Your task to perform on an android device: uninstall "Google Photos" Image 0: 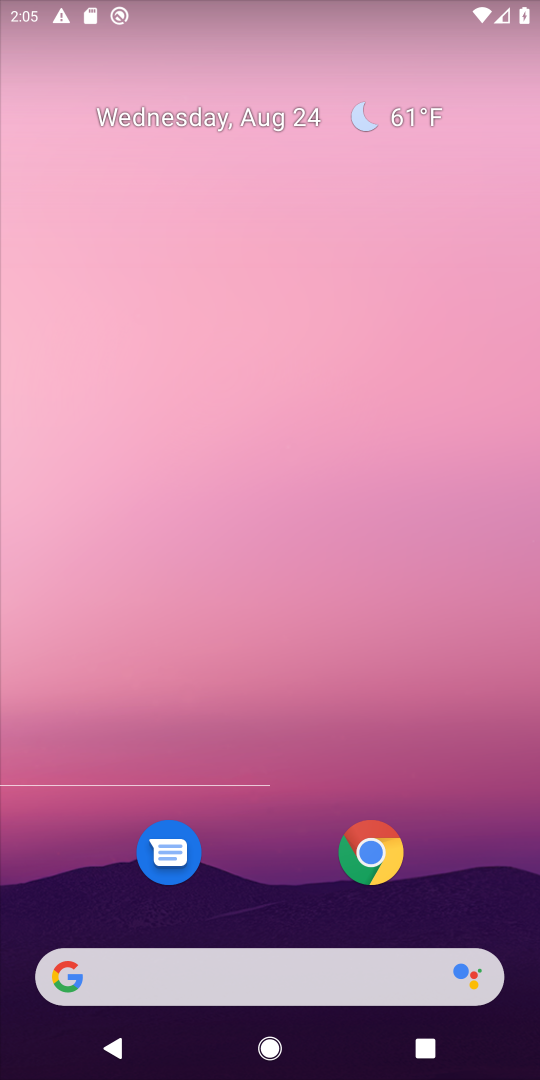
Step 0: press home button
Your task to perform on an android device: uninstall "Google Photos" Image 1: 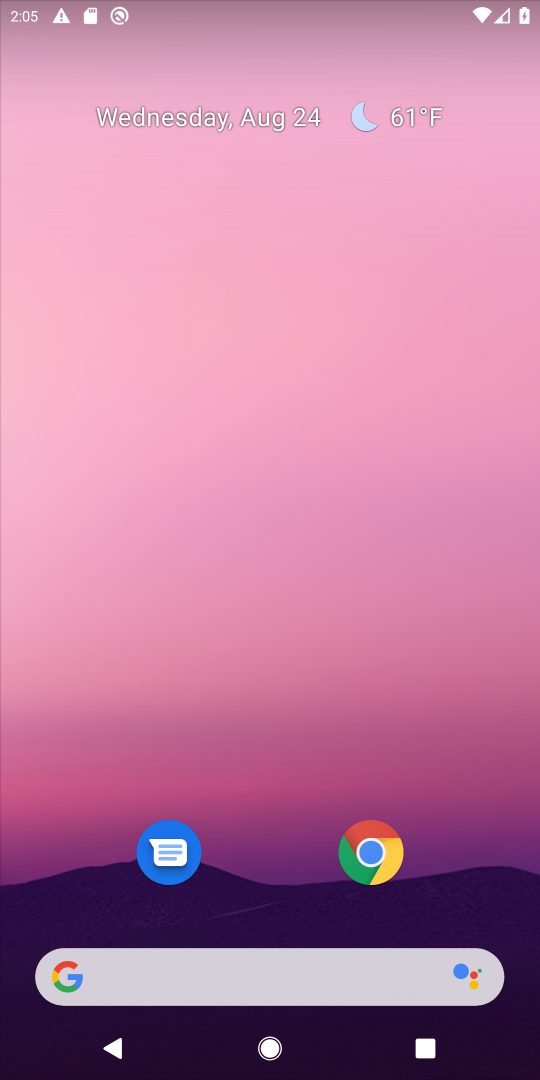
Step 1: drag from (270, 902) to (385, 35)
Your task to perform on an android device: uninstall "Google Photos" Image 2: 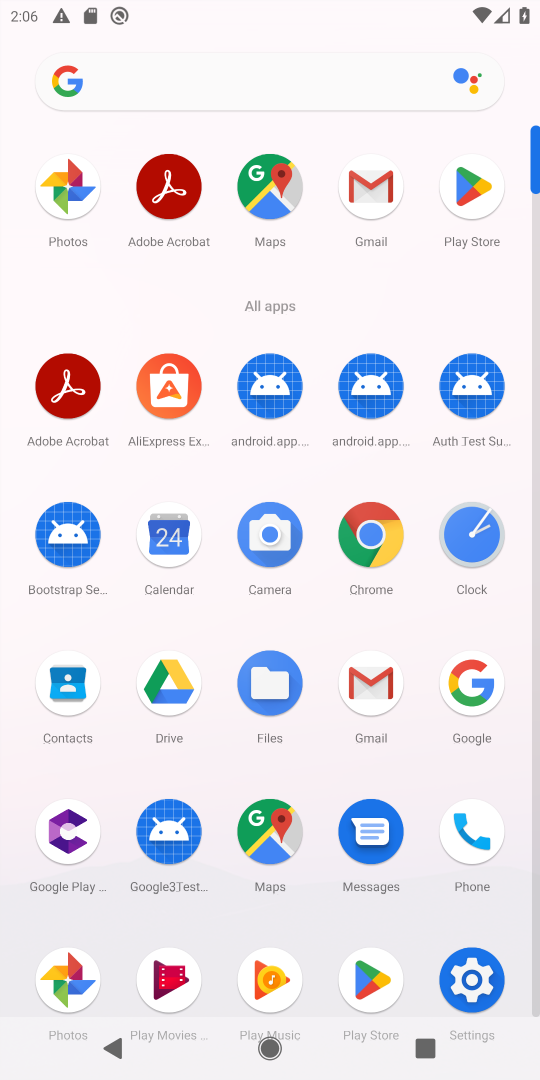
Step 2: click (463, 197)
Your task to perform on an android device: uninstall "Google Photos" Image 3: 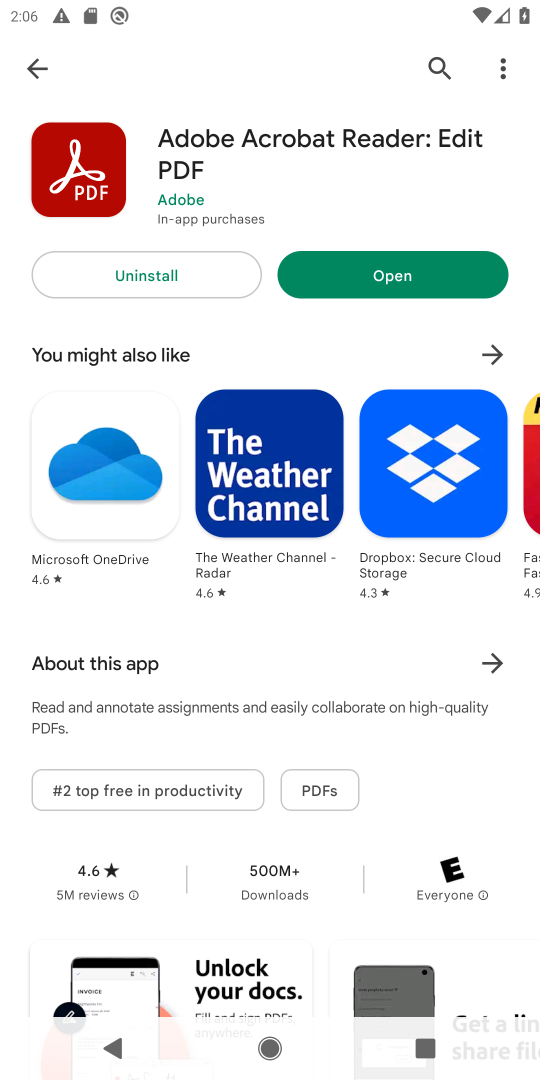
Step 3: click (432, 59)
Your task to perform on an android device: uninstall "Google Photos" Image 4: 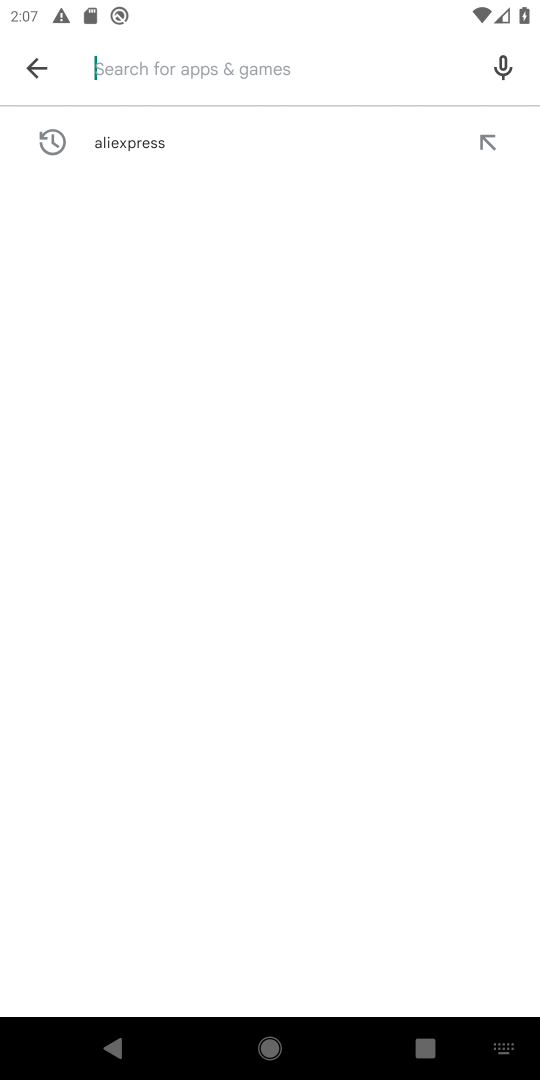
Step 4: type "Google Photos"
Your task to perform on an android device: uninstall "Google Photos" Image 5: 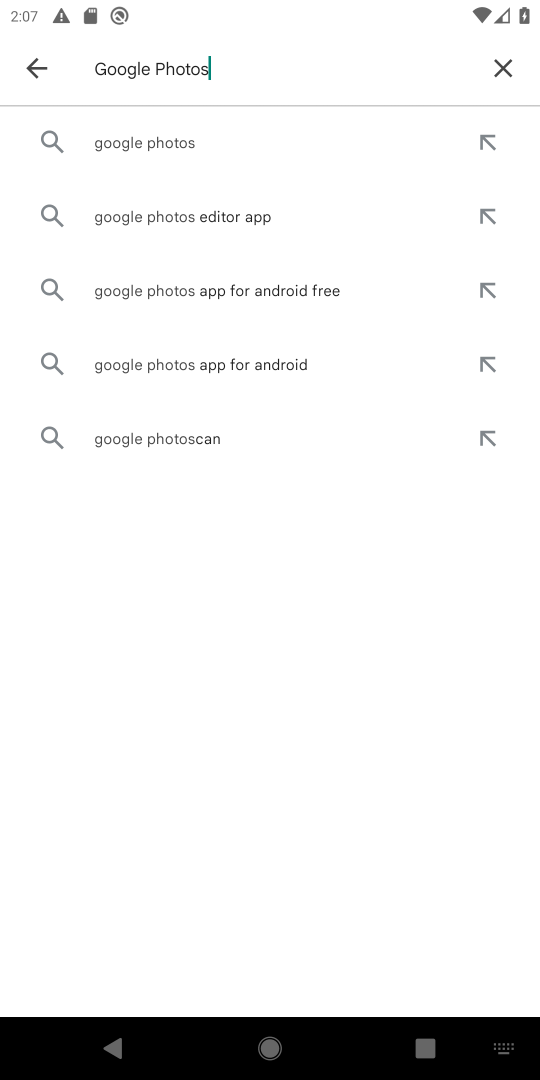
Step 5: click (119, 156)
Your task to perform on an android device: uninstall "Google Photos" Image 6: 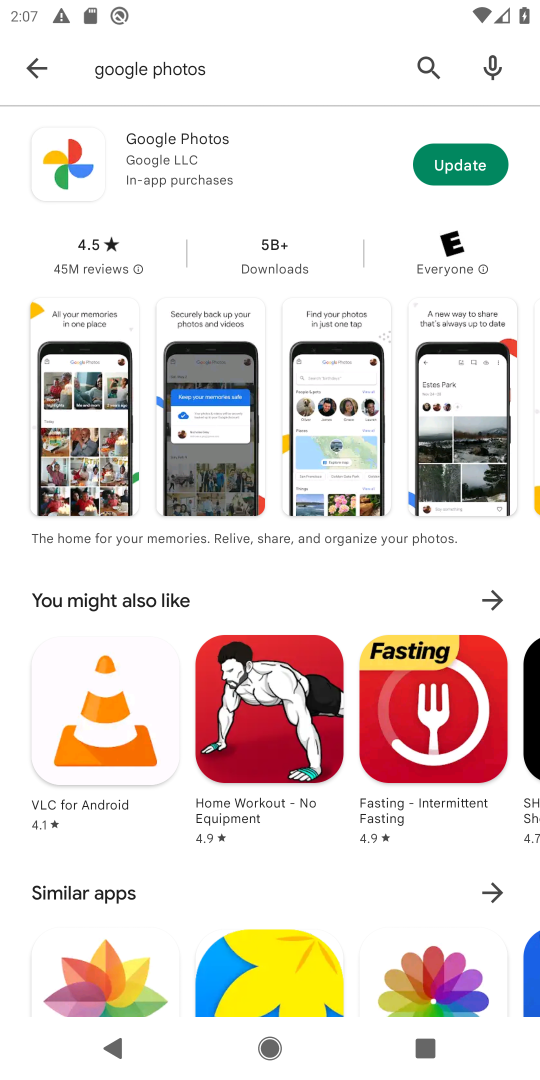
Step 6: click (464, 174)
Your task to perform on an android device: uninstall "Google Photos" Image 7: 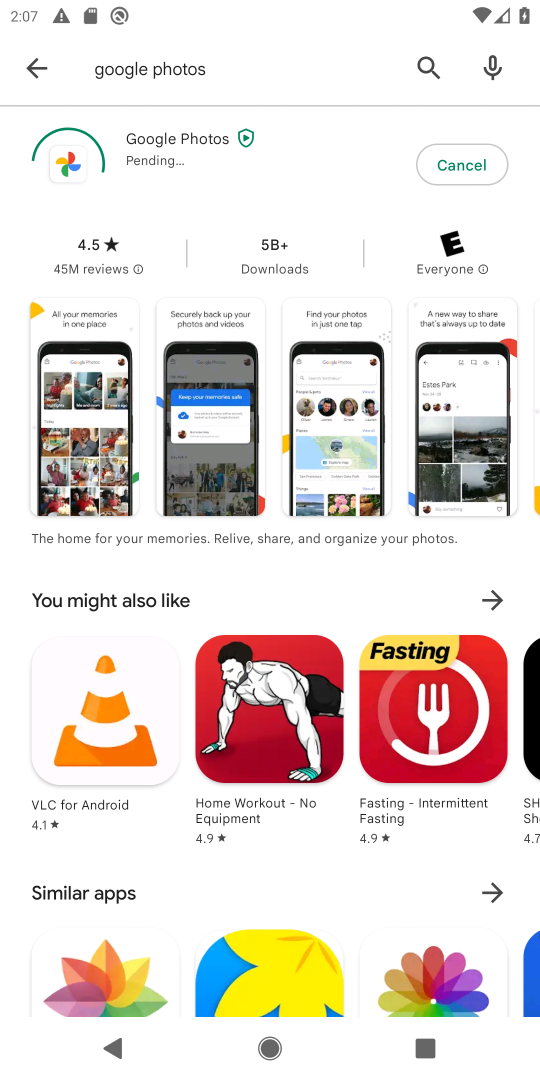
Step 7: task complete